Your task to perform on an android device: uninstall "Nova Launcher" Image 0: 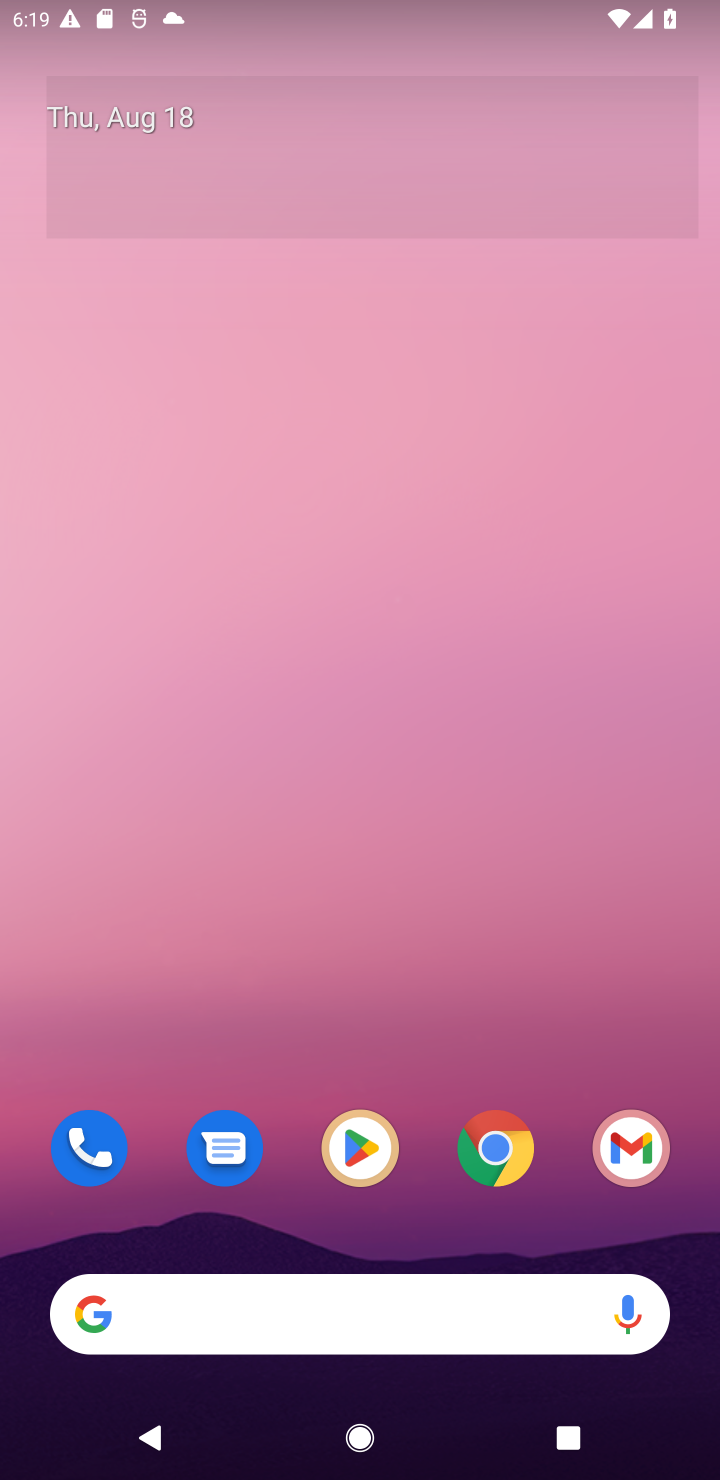
Step 0: drag from (175, 374) to (238, 72)
Your task to perform on an android device: uninstall "Nova Launcher" Image 1: 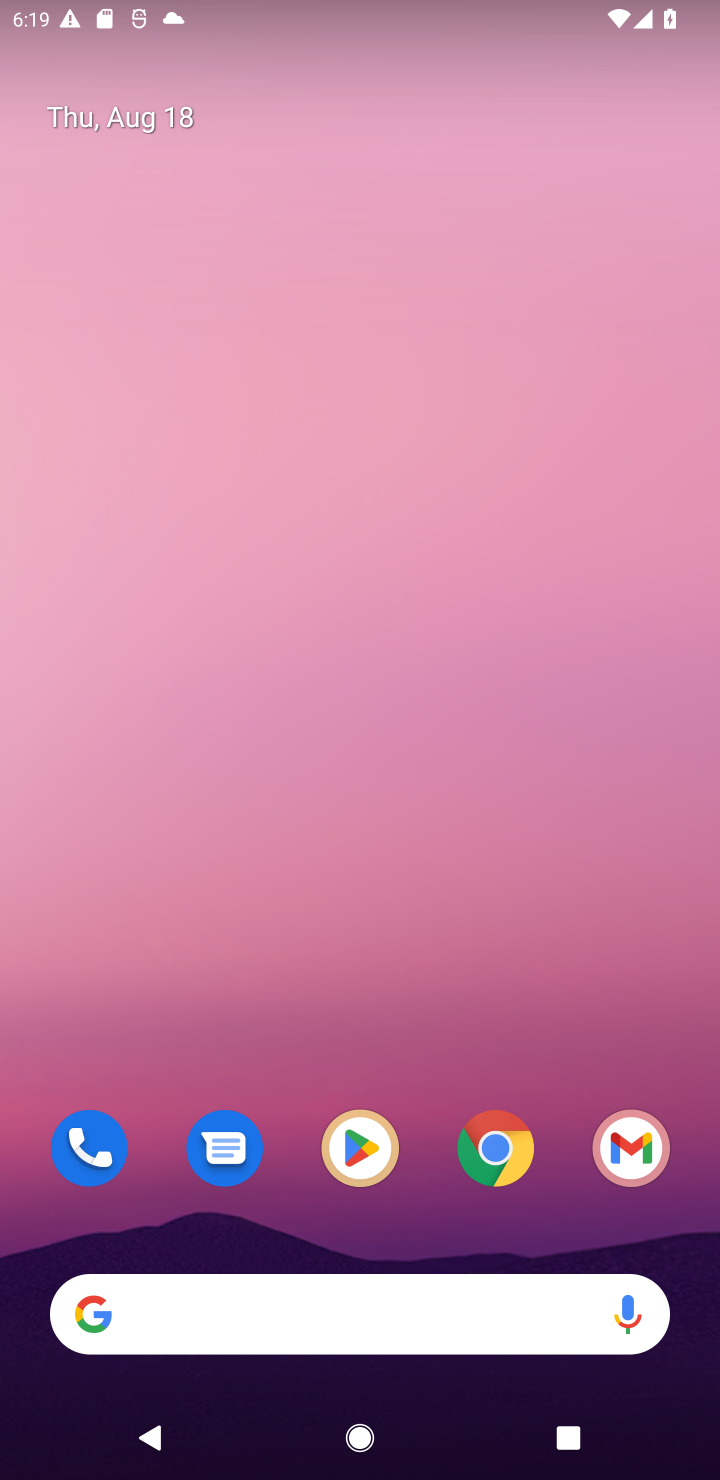
Step 1: press home button
Your task to perform on an android device: uninstall "Nova Launcher" Image 2: 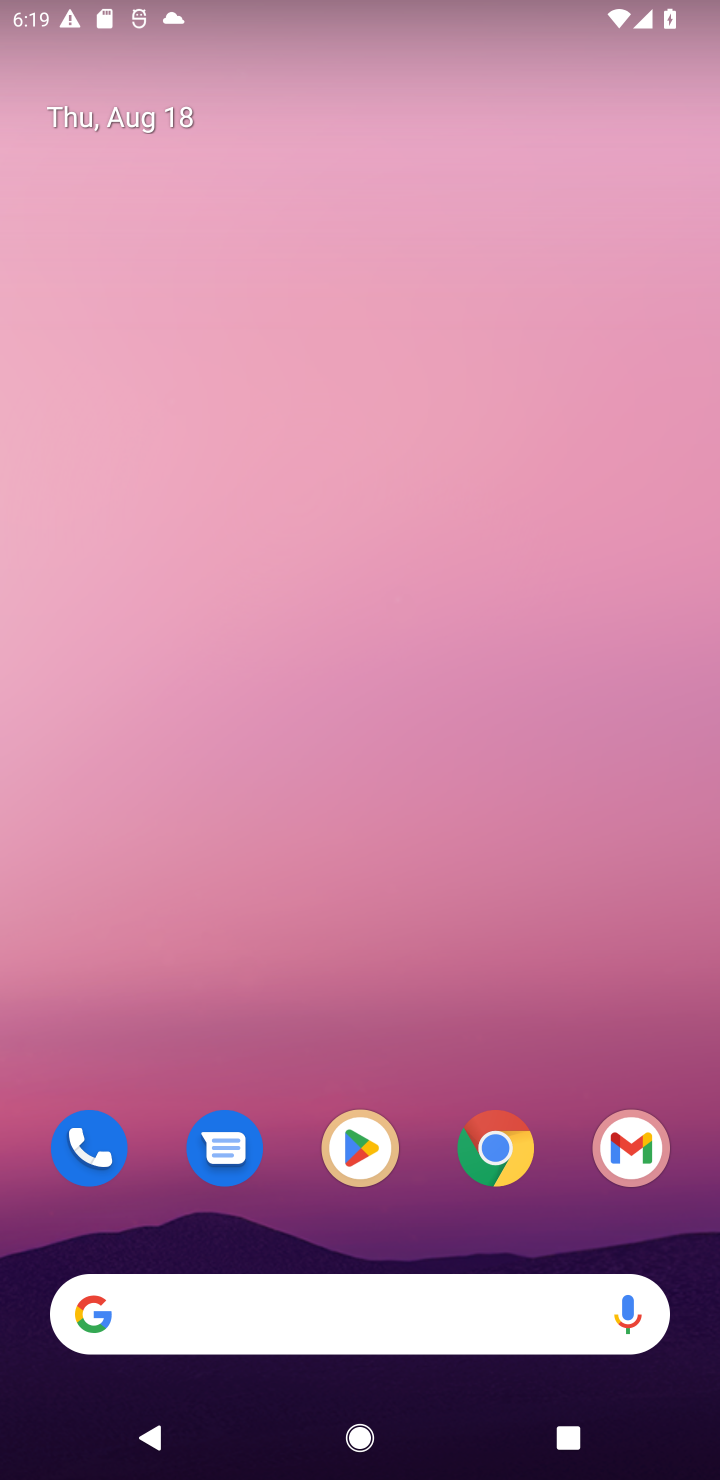
Step 2: drag from (307, 386) to (404, 55)
Your task to perform on an android device: uninstall "Nova Launcher" Image 3: 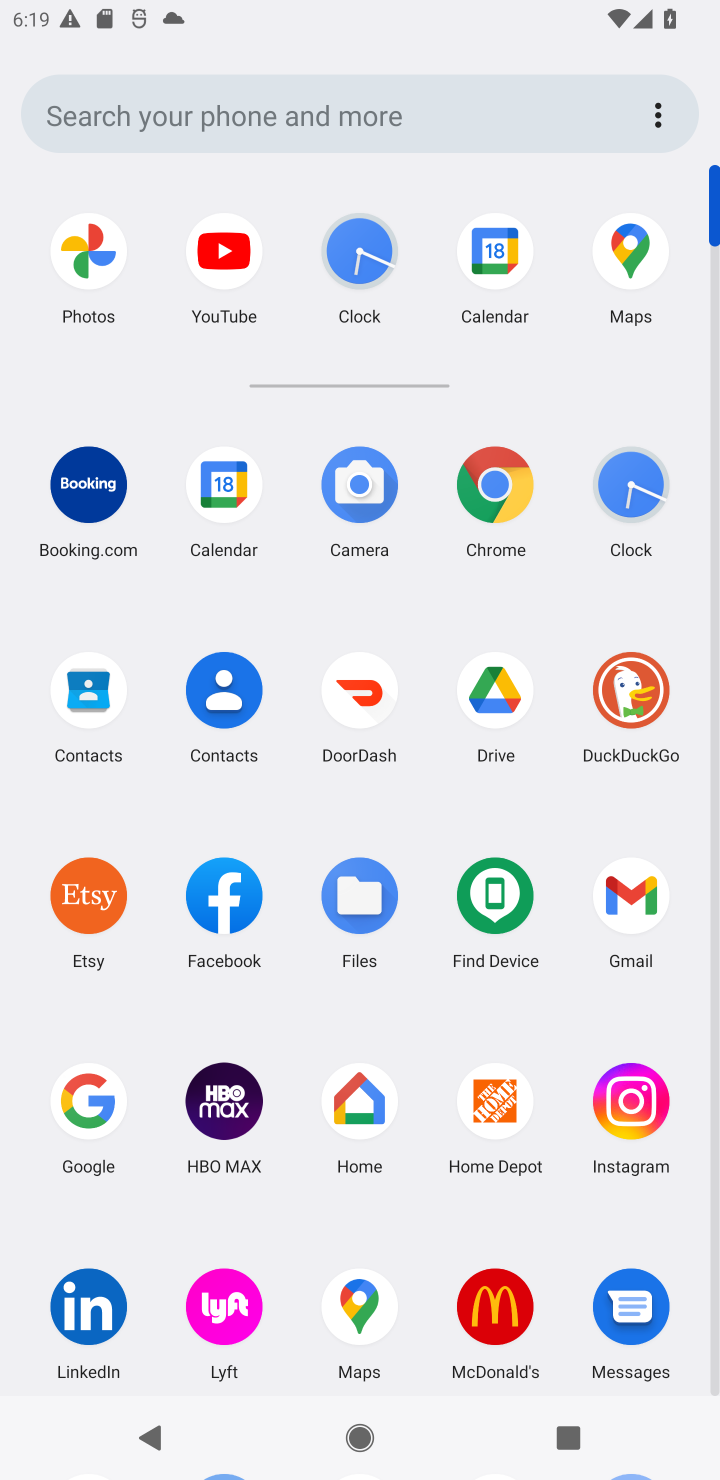
Step 3: drag from (336, 992) to (347, 404)
Your task to perform on an android device: uninstall "Nova Launcher" Image 4: 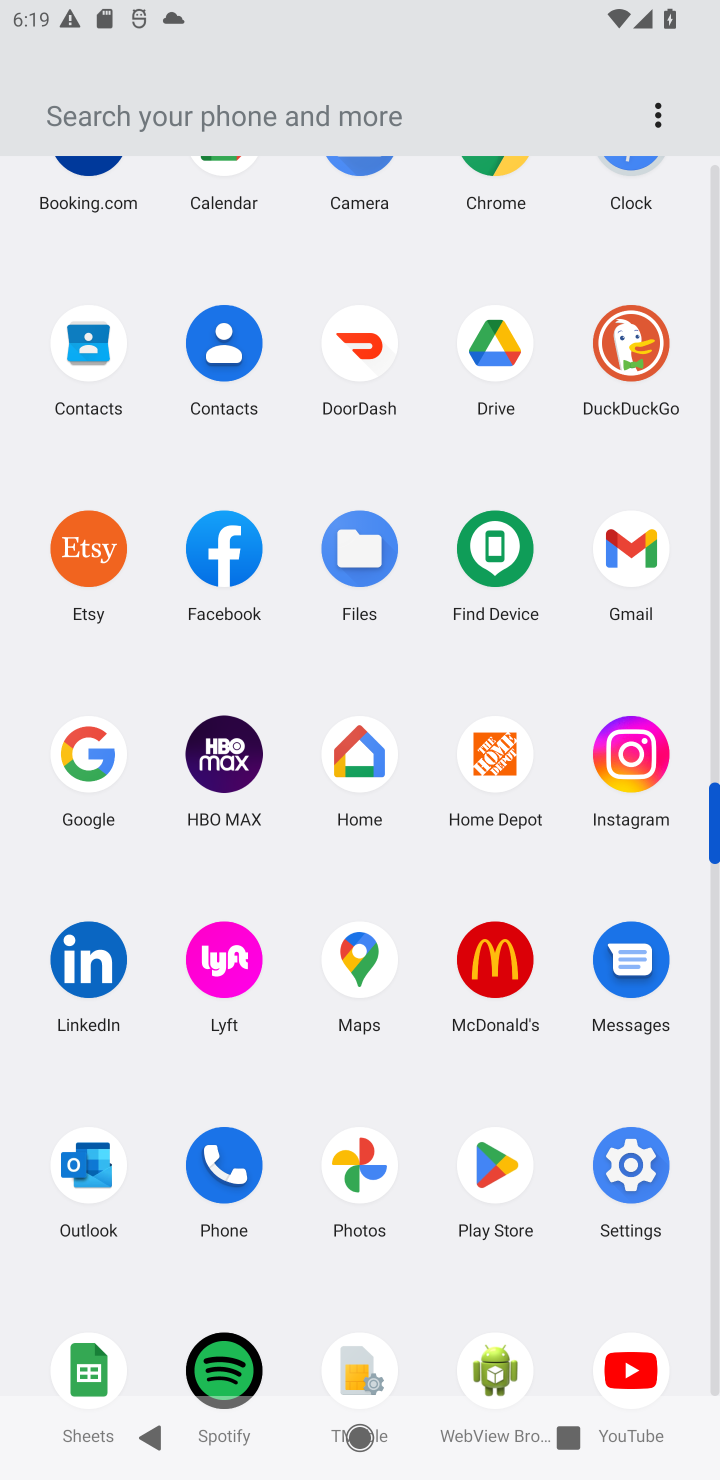
Step 4: click (463, 1164)
Your task to perform on an android device: uninstall "Nova Launcher" Image 5: 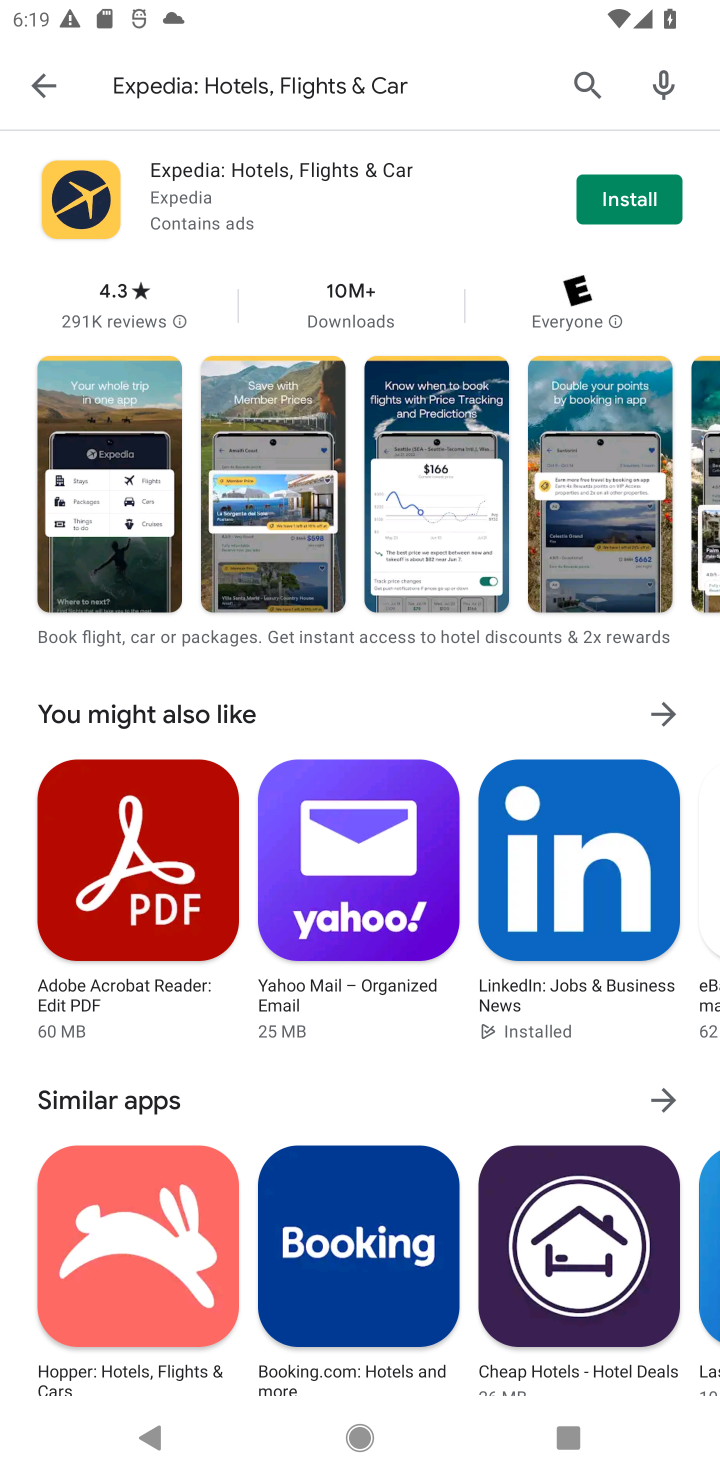
Step 5: press back button
Your task to perform on an android device: uninstall "Nova Launcher" Image 6: 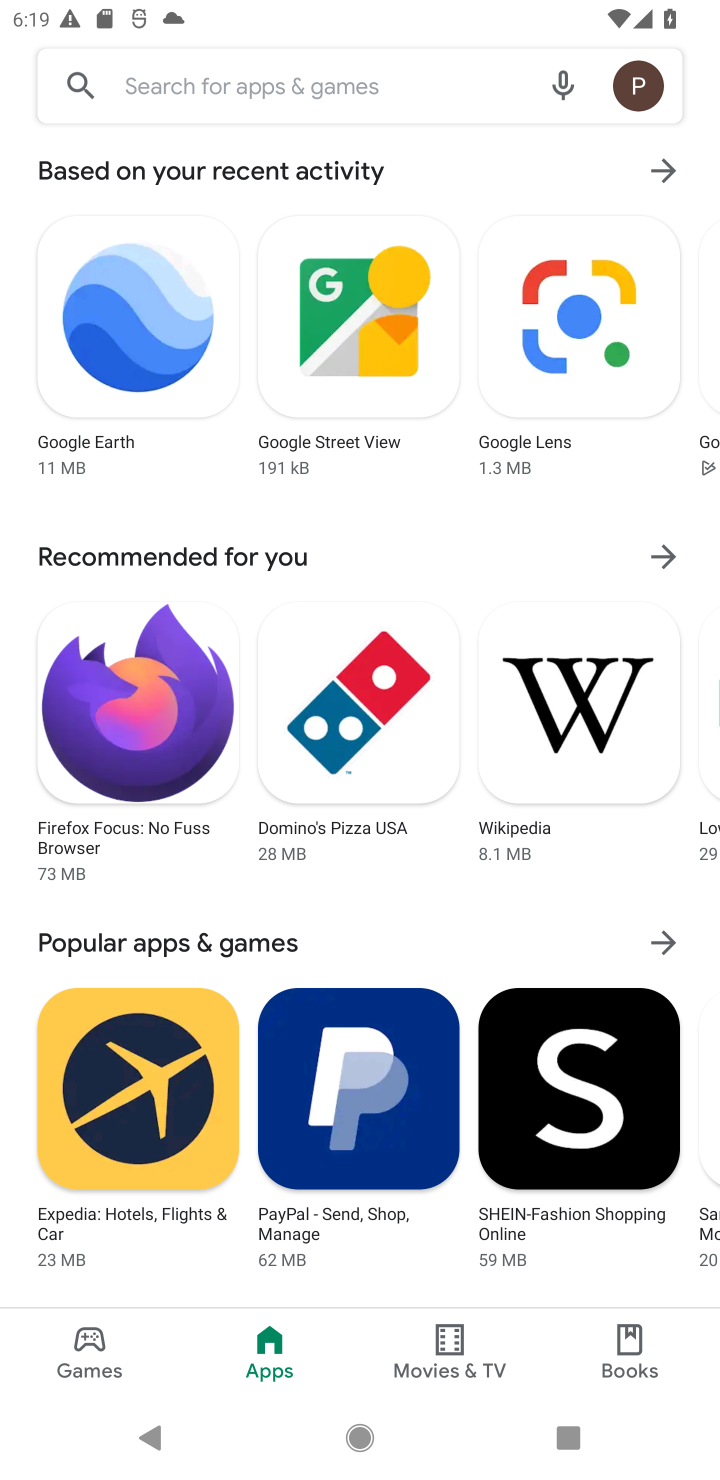
Step 6: click (207, 73)
Your task to perform on an android device: uninstall "Nova Launcher" Image 7: 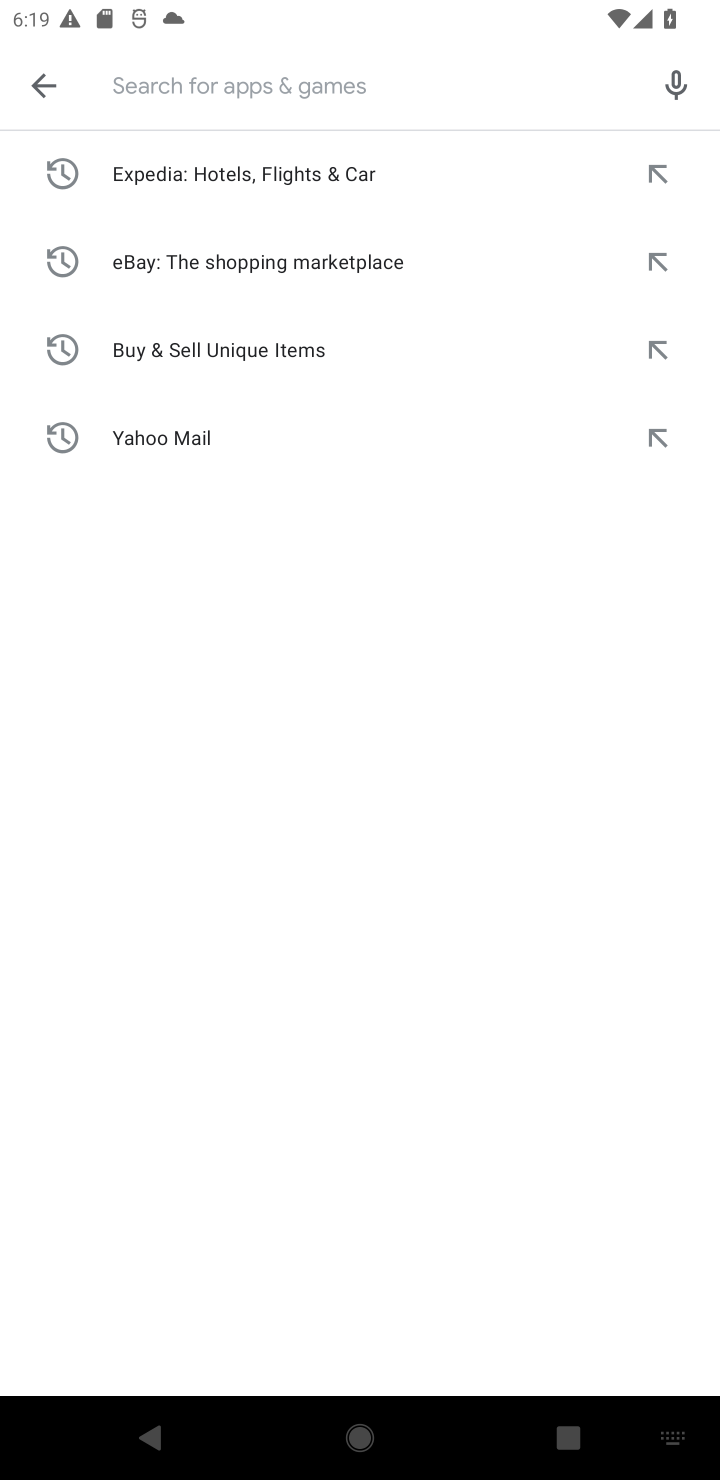
Step 7: type "Nova Launcher"
Your task to perform on an android device: uninstall "Nova Launcher" Image 8: 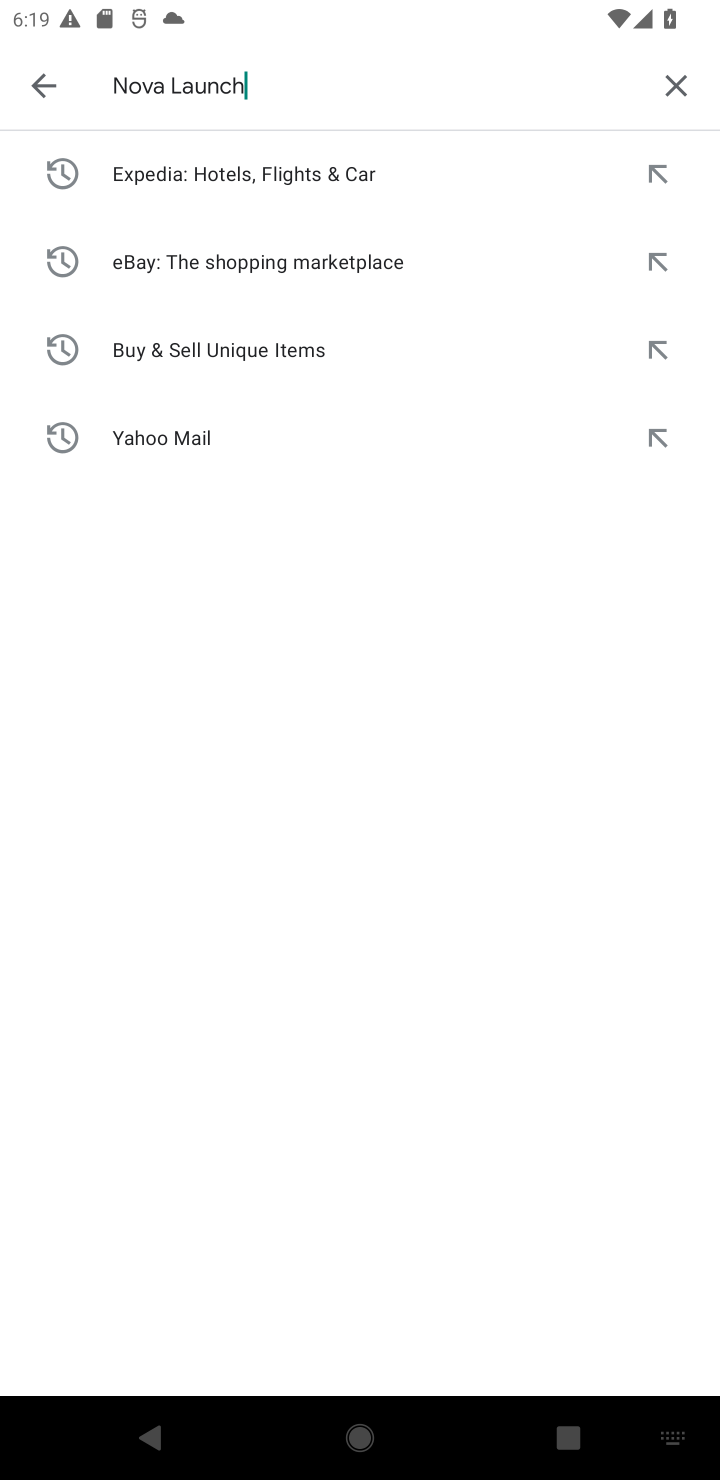
Step 8: press enter
Your task to perform on an android device: uninstall "Nova Launcher" Image 9: 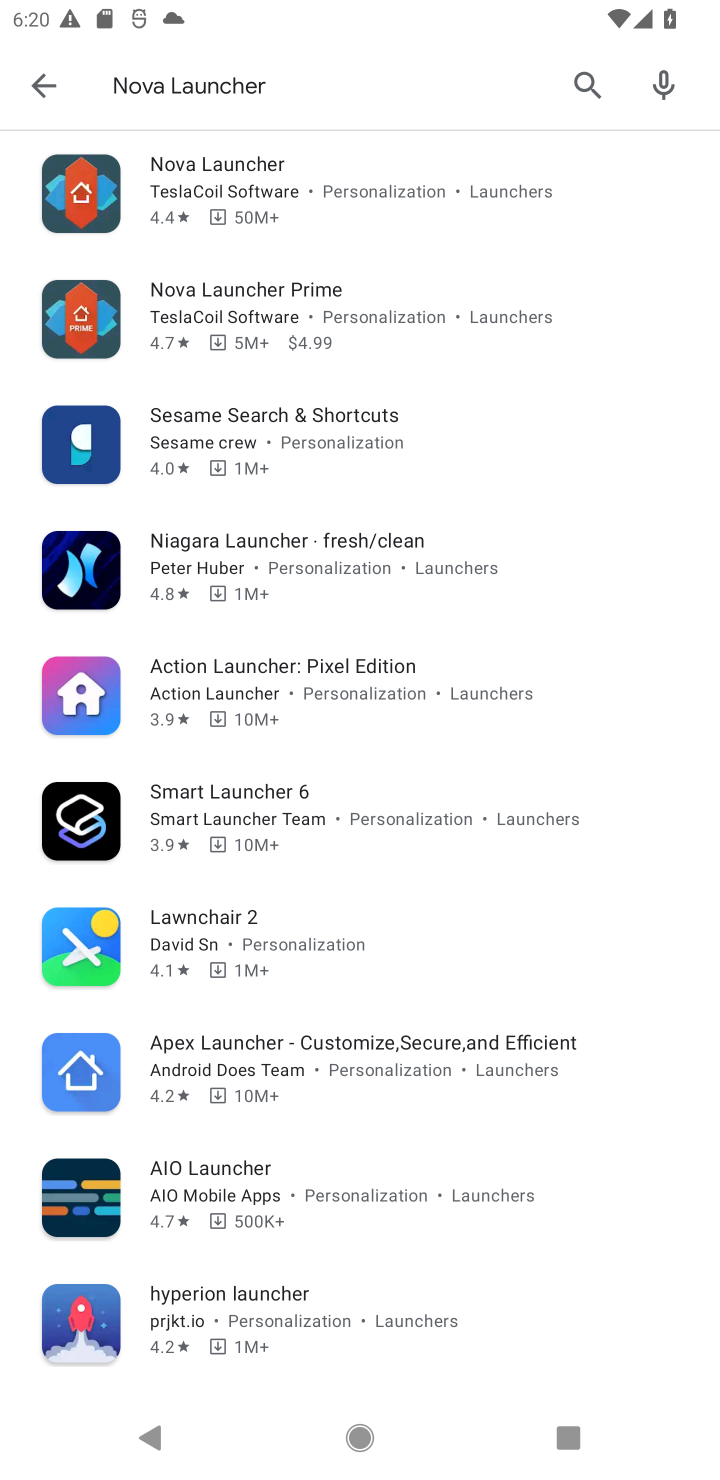
Step 9: click (173, 193)
Your task to perform on an android device: uninstall "Nova Launcher" Image 10: 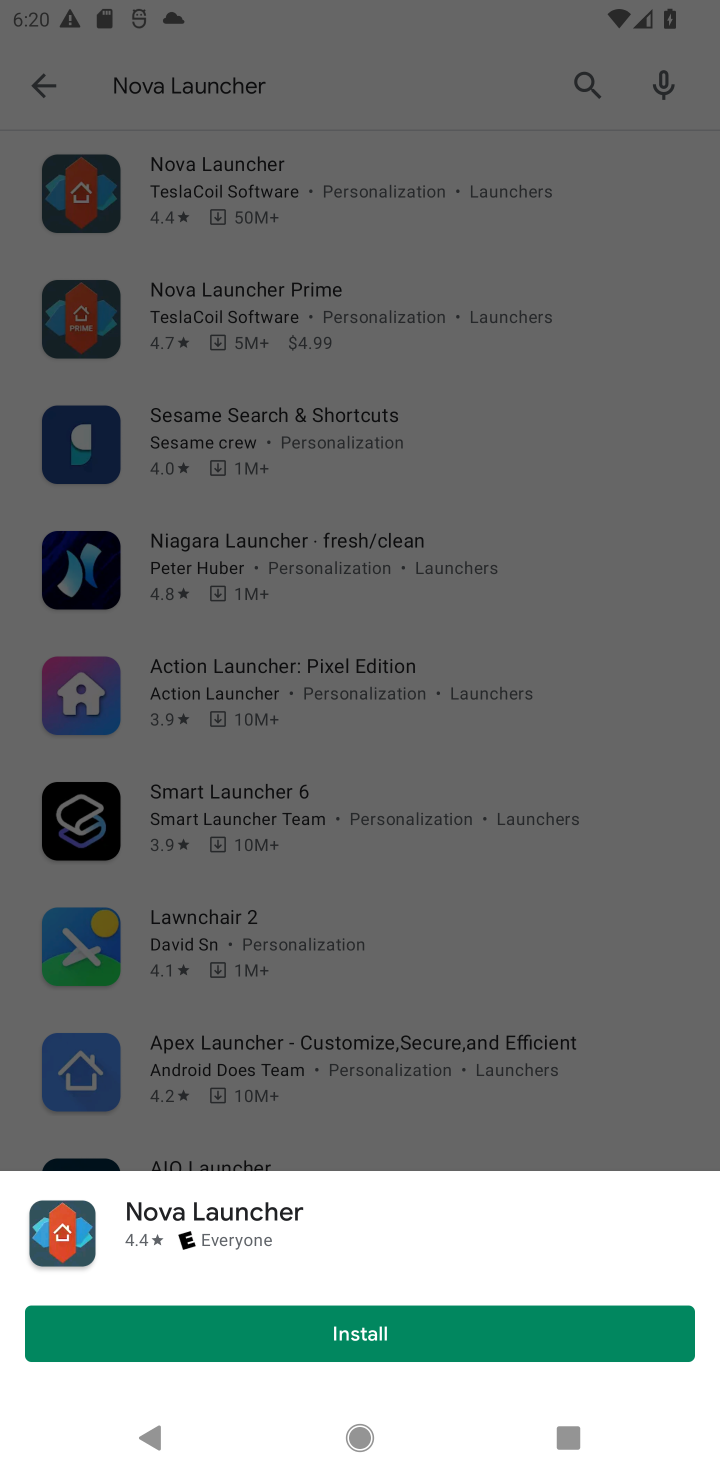
Step 10: task complete